Your task to perform on an android device: Show me the alarms in the clock app Image 0: 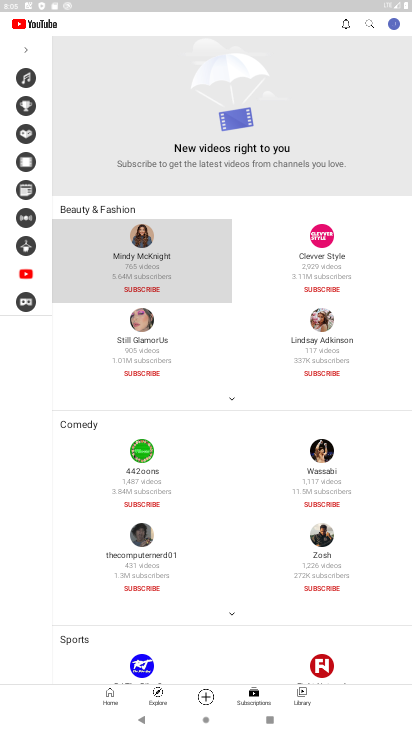
Step 0: press home button
Your task to perform on an android device: Show me the alarms in the clock app Image 1: 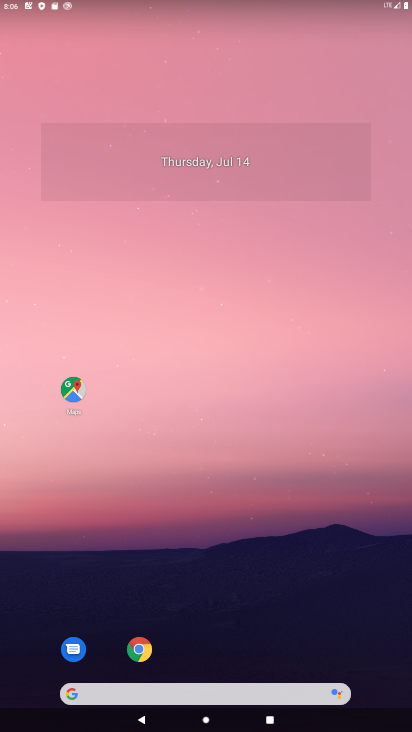
Step 1: drag from (88, 651) to (207, 25)
Your task to perform on an android device: Show me the alarms in the clock app Image 2: 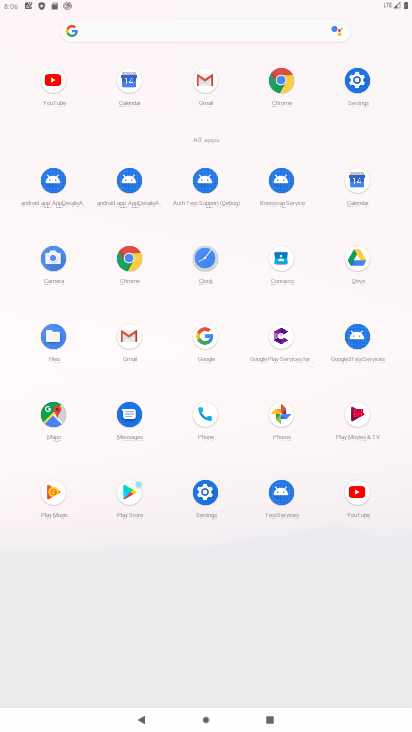
Step 2: click (196, 259)
Your task to perform on an android device: Show me the alarms in the clock app Image 3: 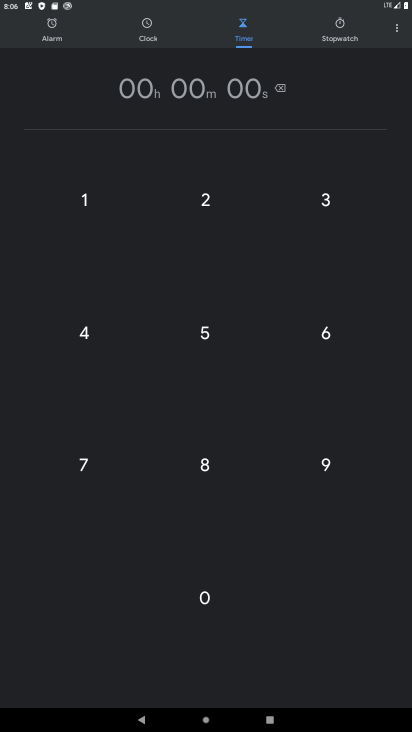
Step 3: click (52, 31)
Your task to perform on an android device: Show me the alarms in the clock app Image 4: 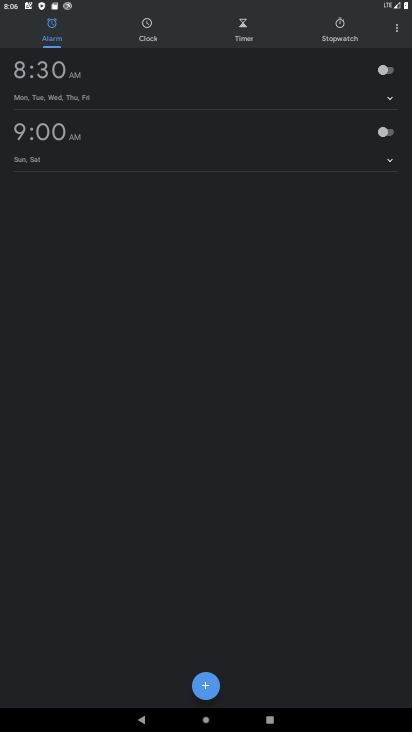
Step 4: task complete